Your task to perform on an android device: What's the weather going to be tomorrow? Image 0: 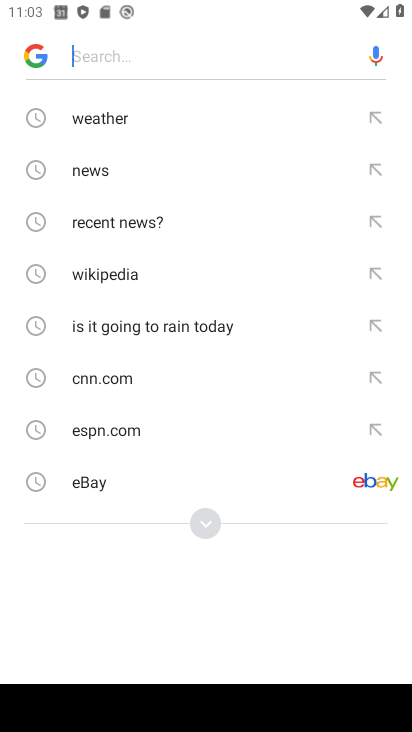
Step 0: click (121, 119)
Your task to perform on an android device: What's the weather going to be tomorrow? Image 1: 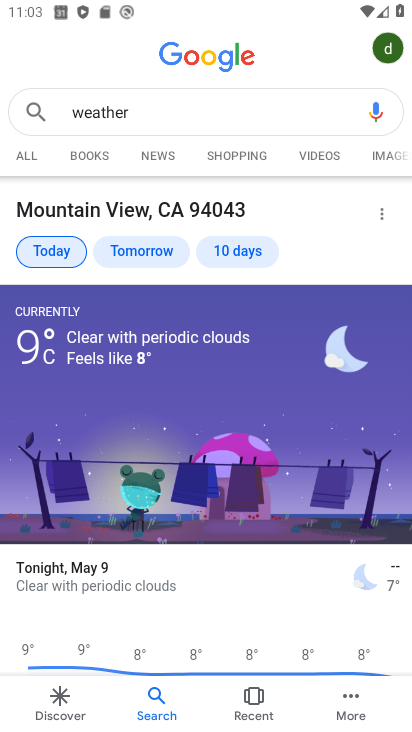
Step 1: click (144, 255)
Your task to perform on an android device: What's the weather going to be tomorrow? Image 2: 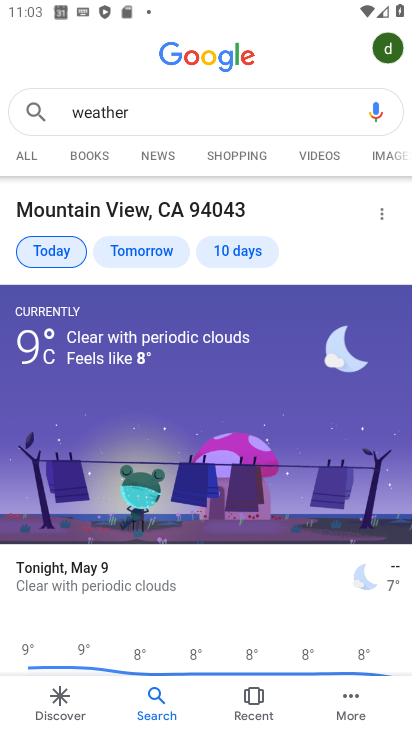
Step 2: click (144, 250)
Your task to perform on an android device: What's the weather going to be tomorrow? Image 3: 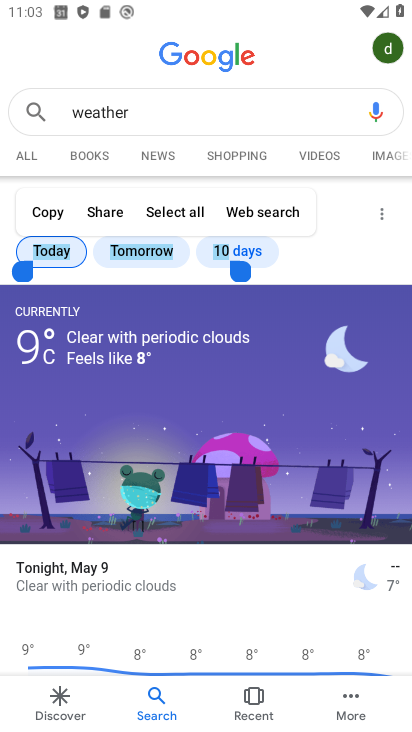
Step 3: click (142, 252)
Your task to perform on an android device: What's the weather going to be tomorrow? Image 4: 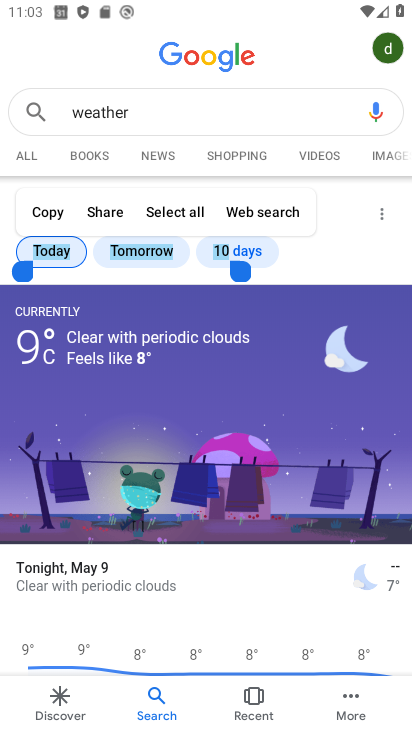
Step 4: click (142, 252)
Your task to perform on an android device: What's the weather going to be tomorrow? Image 5: 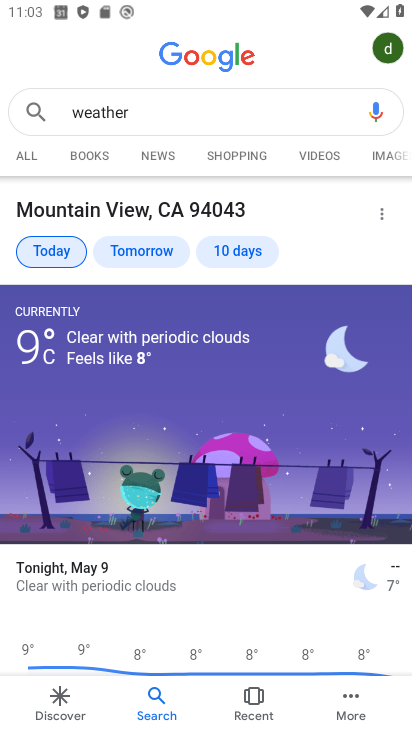
Step 5: click (143, 263)
Your task to perform on an android device: What's the weather going to be tomorrow? Image 6: 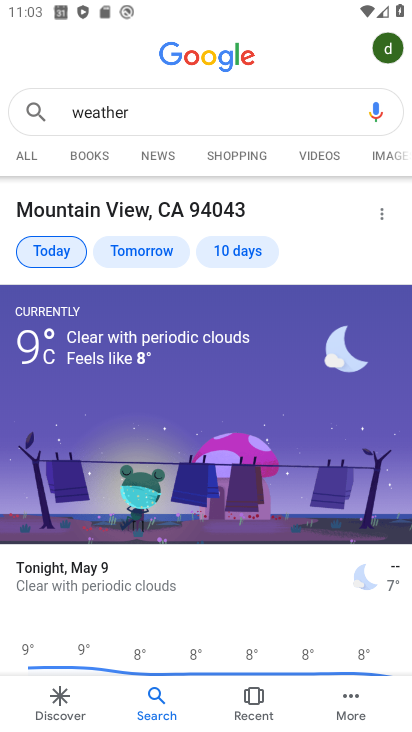
Step 6: press back button
Your task to perform on an android device: What's the weather going to be tomorrow? Image 7: 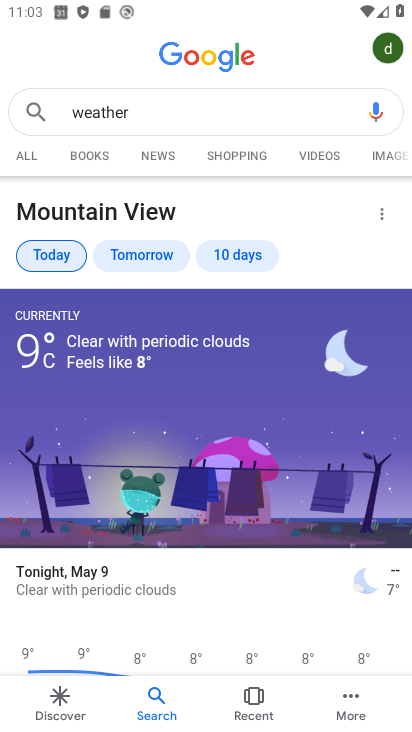
Step 7: press back button
Your task to perform on an android device: What's the weather going to be tomorrow? Image 8: 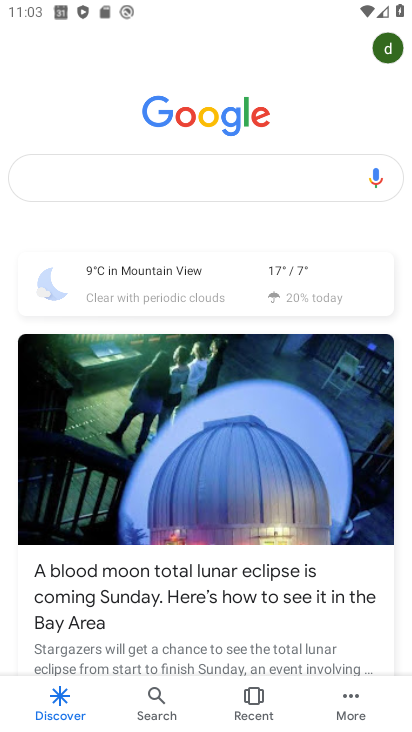
Step 8: click (303, 280)
Your task to perform on an android device: What's the weather going to be tomorrow? Image 9: 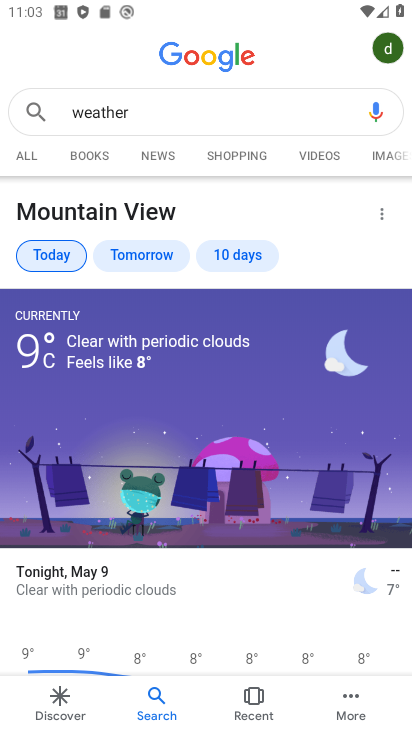
Step 9: click (166, 253)
Your task to perform on an android device: What's the weather going to be tomorrow? Image 10: 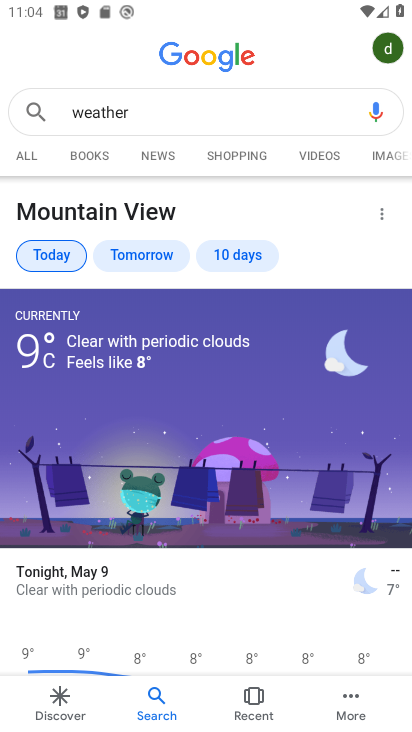
Step 10: click (178, 102)
Your task to perform on an android device: What's the weather going to be tomorrow? Image 11: 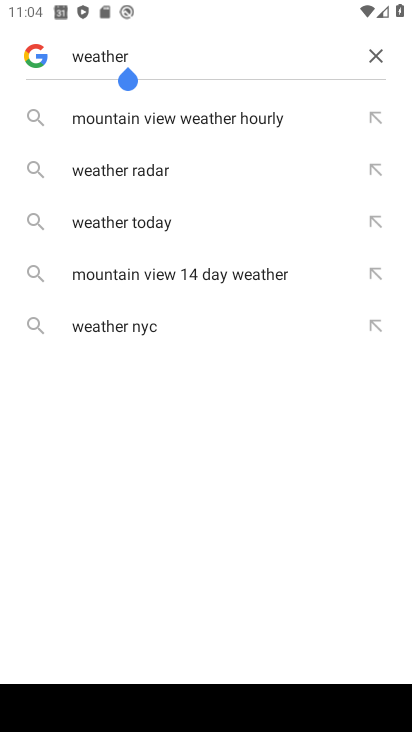
Step 11: click (371, 56)
Your task to perform on an android device: What's the weather going to be tomorrow? Image 12: 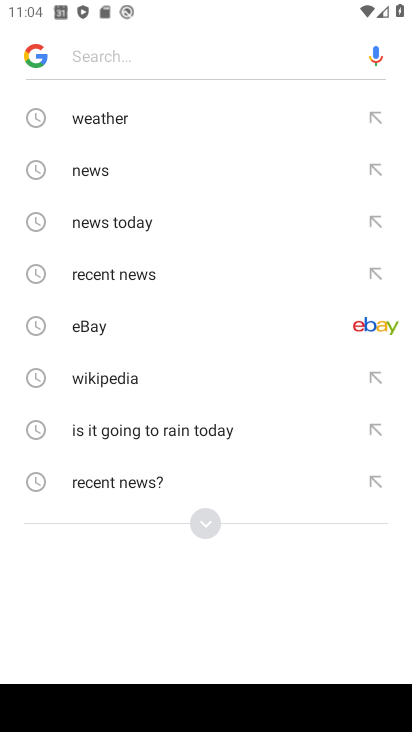
Step 12: type "what's the weather going to be tomorrow?"
Your task to perform on an android device: What's the weather going to be tomorrow? Image 13: 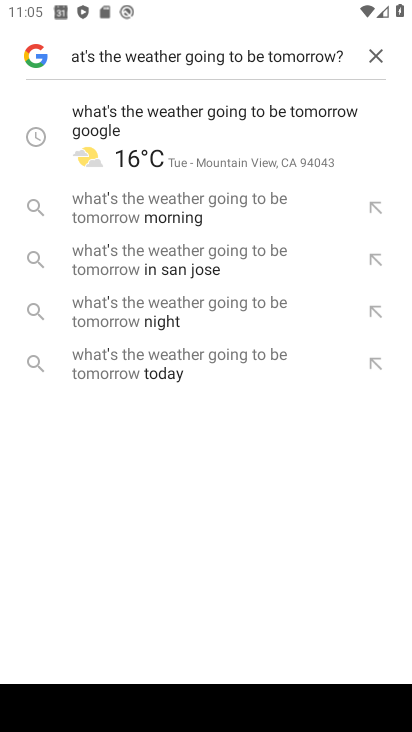
Step 13: click (195, 117)
Your task to perform on an android device: What's the weather going to be tomorrow? Image 14: 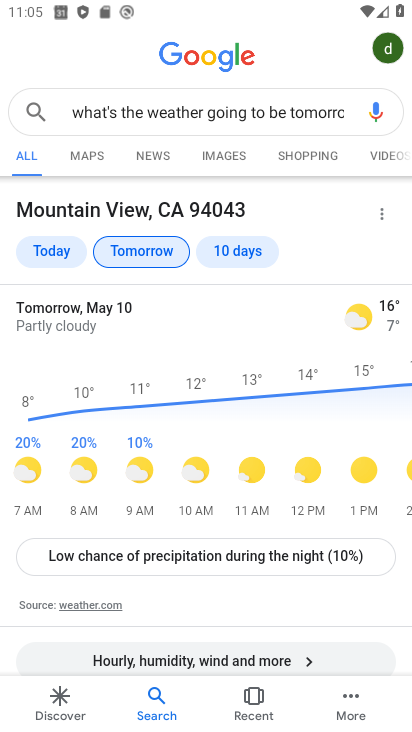
Step 14: task complete